Your task to perform on an android device: turn off notifications settings in the gmail app Image 0: 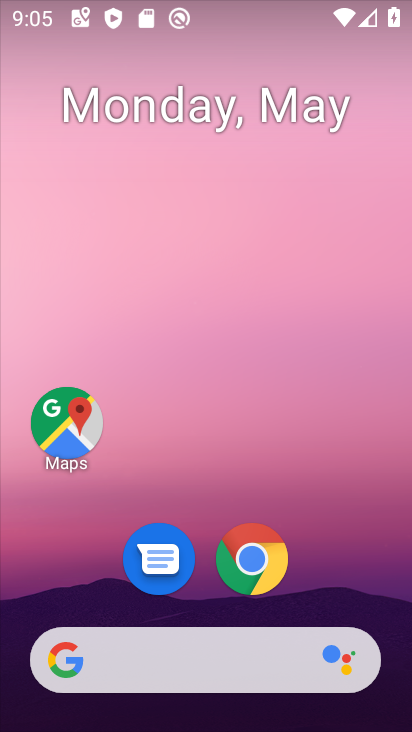
Step 0: drag from (344, 557) to (211, 123)
Your task to perform on an android device: turn off notifications settings in the gmail app Image 1: 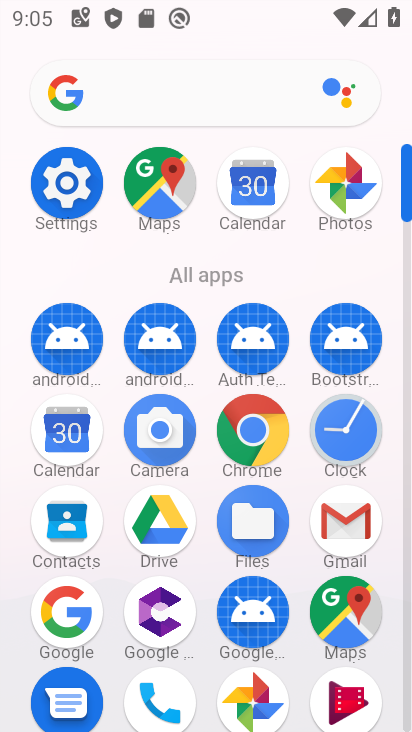
Step 1: click (343, 533)
Your task to perform on an android device: turn off notifications settings in the gmail app Image 2: 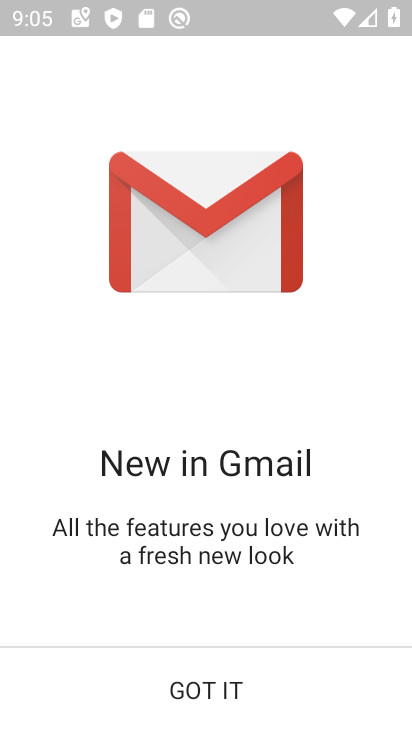
Step 2: click (208, 682)
Your task to perform on an android device: turn off notifications settings in the gmail app Image 3: 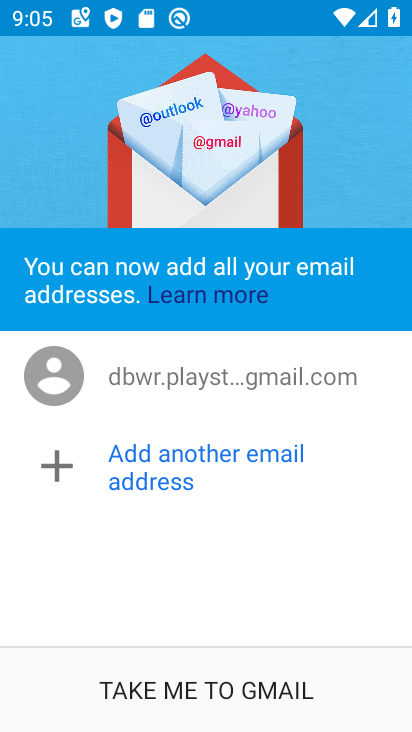
Step 3: click (208, 696)
Your task to perform on an android device: turn off notifications settings in the gmail app Image 4: 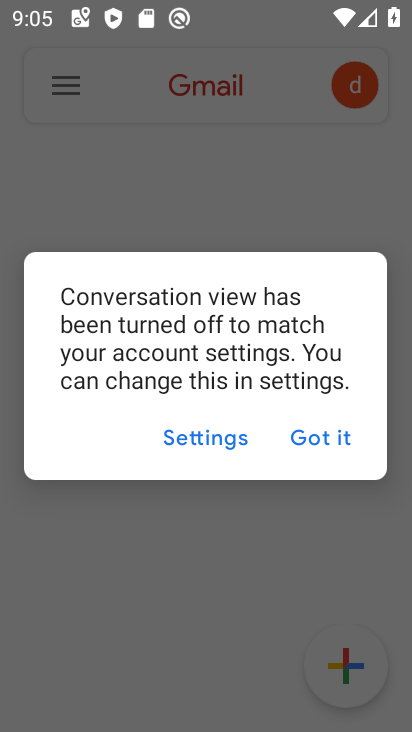
Step 4: click (310, 440)
Your task to perform on an android device: turn off notifications settings in the gmail app Image 5: 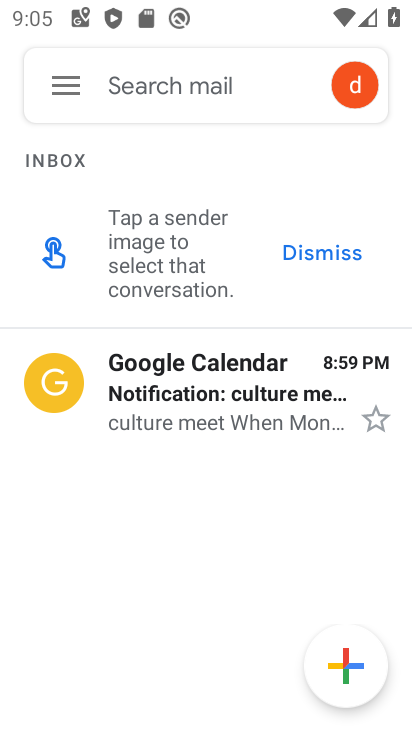
Step 5: click (70, 84)
Your task to perform on an android device: turn off notifications settings in the gmail app Image 6: 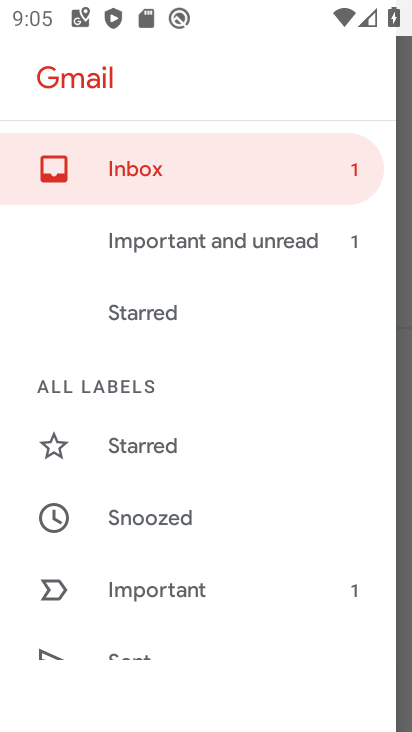
Step 6: drag from (252, 519) to (183, 258)
Your task to perform on an android device: turn off notifications settings in the gmail app Image 7: 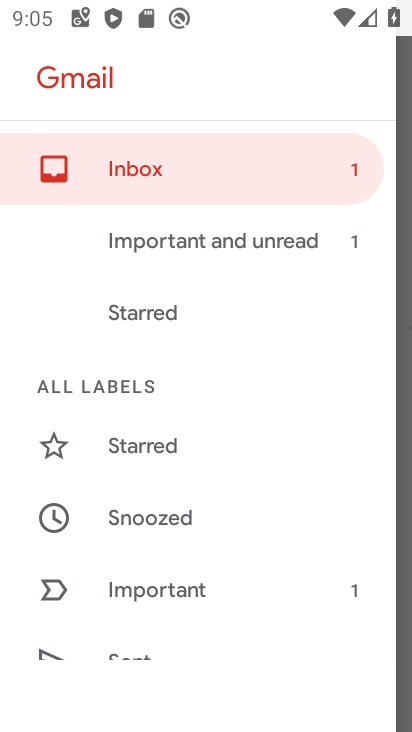
Step 7: drag from (180, 545) to (188, 222)
Your task to perform on an android device: turn off notifications settings in the gmail app Image 8: 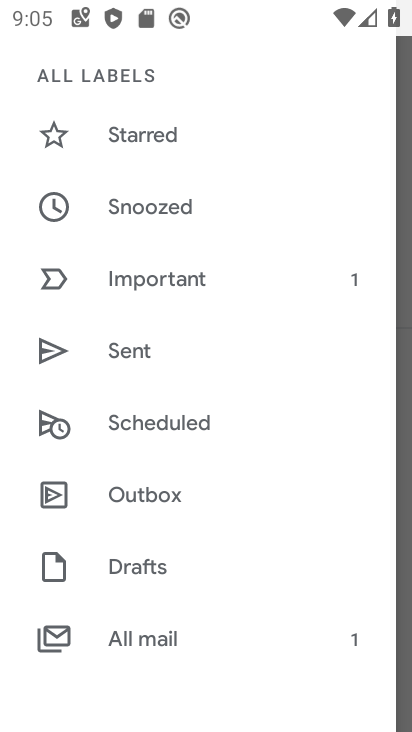
Step 8: drag from (194, 593) to (201, 320)
Your task to perform on an android device: turn off notifications settings in the gmail app Image 9: 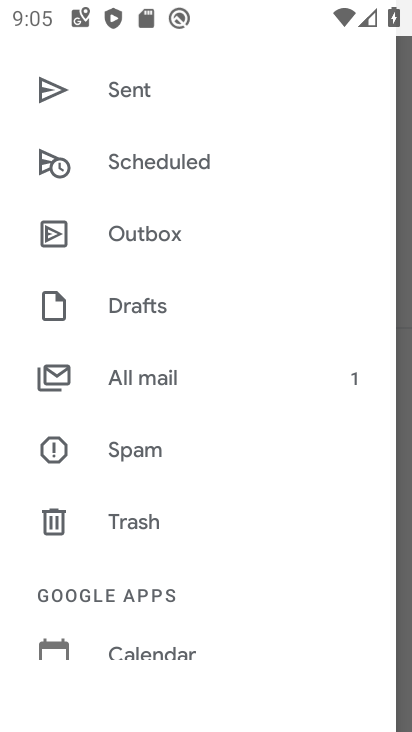
Step 9: drag from (225, 550) to (201, 177)
Your task to perform on an android device: turn off notifications settings in the gmail app Image 10: 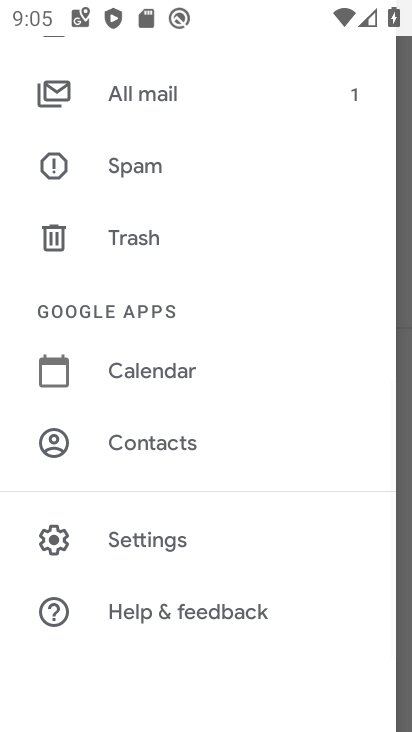
Step 10: click (140, 535)
Your task to perform on an android device: turn off notifications settings in the gmail app Image 11: 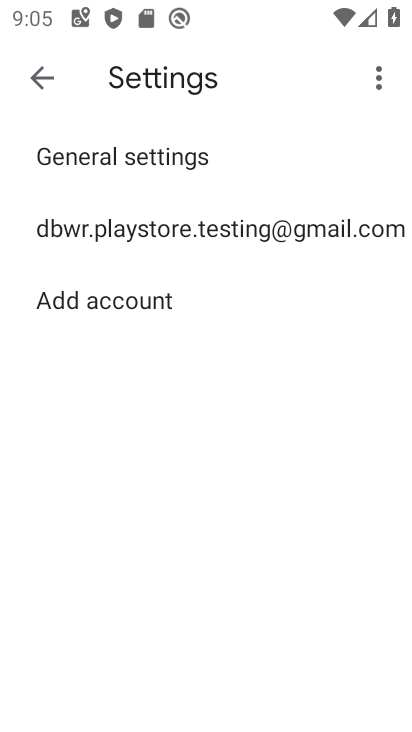
Step 11: click (93, 162)
Your task to perform on an android device: turn off notifications settings in the gmail app Image 12: 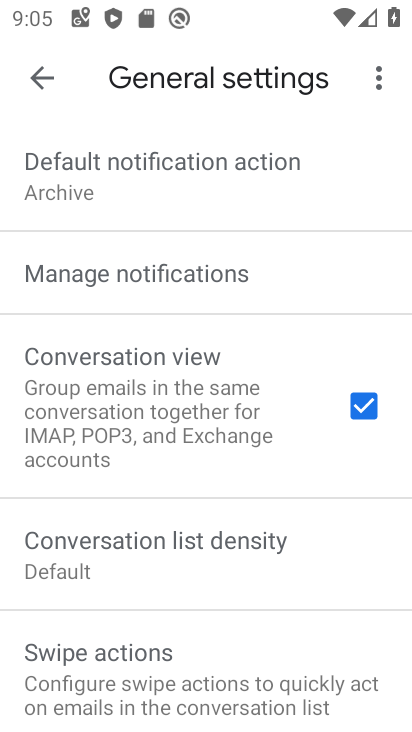
Step 12: click (124, 268)
Your task to perform on an android device: turn off notifications settings in the gmail app Image 13: 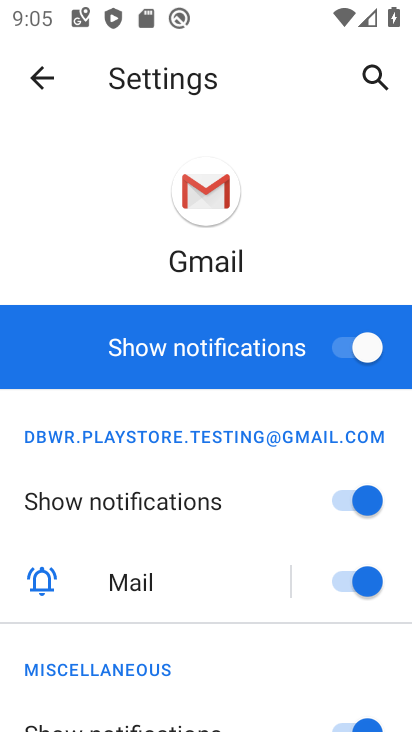
Step 13: click (357, 346)
Your task to perform on an android device: turn off notifications settings in the gmail app Image 14: 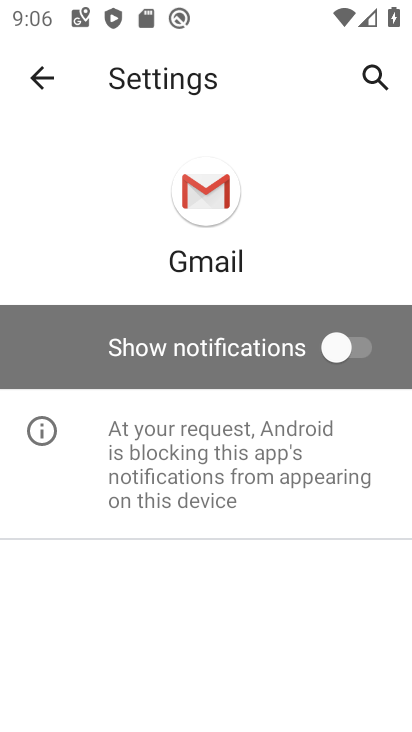
Step 14: task complete